Your task to perform on an android device: Clear the cart on ebay. Add razer blackwidow to the cart on ebay, then select checkout. Image 0: 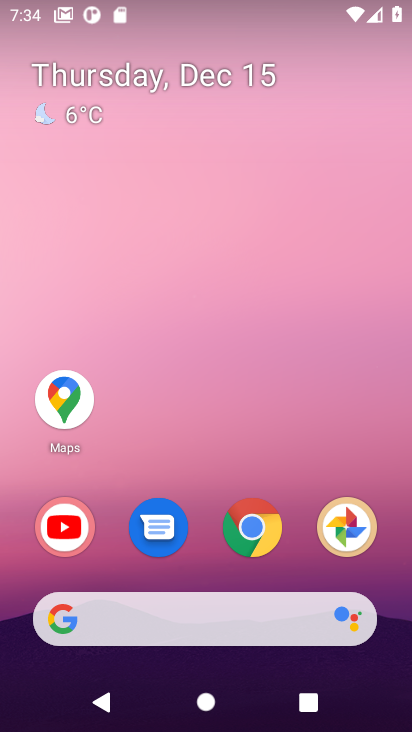
Step 0: click (245, 595)
Your task to perform on an android device: Clear the cart on ebay. Add razer blackwidow to the cart on ebay, then select checkout. Image 1: 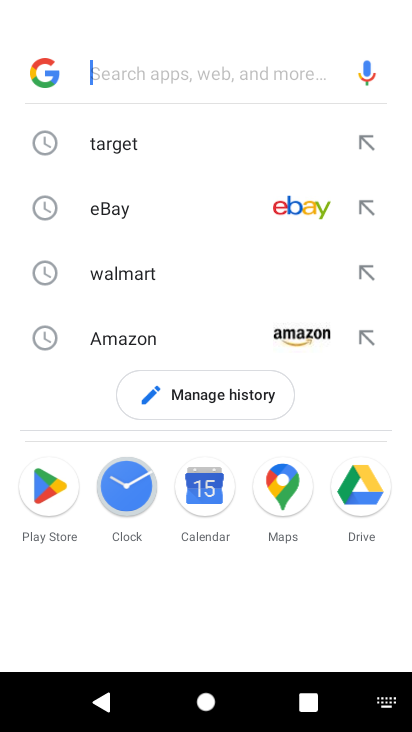
Step 1: click (132, 204)
Your task to perform on an android device: Clear the cart on ebay. Add razer blackwidow to the cart on ebay, then select checkout. Image 2: 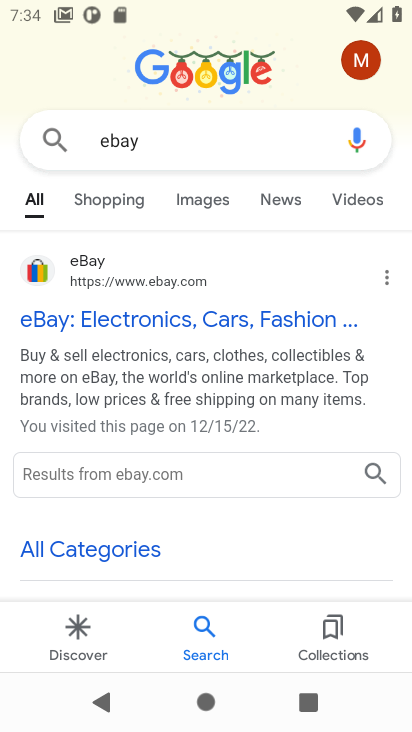
Step 2: click (94, 297)
Your task to perform on an android device: Clear the cart on ebay. Add razer blackwidow to the cart on ebay, then select checkout. Image 3: 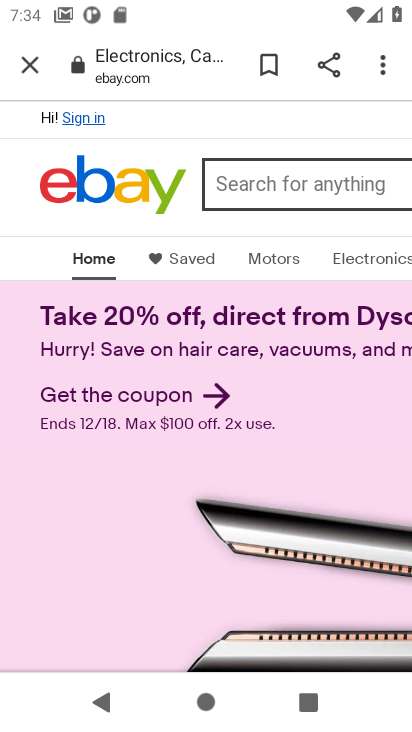
Step 3: task complete